Your task to perform on an android device: find photos in the google photos app Image 0: 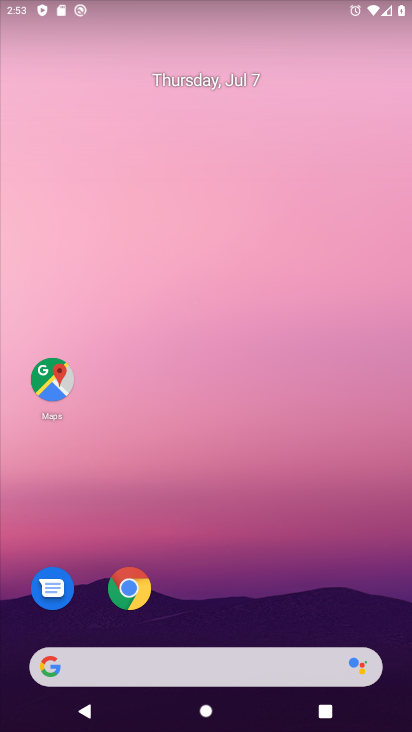
Step 0: drag from (220, 651) to (219, 173)
Your task to perform on an android device: find photos in the google photos app Image 1: 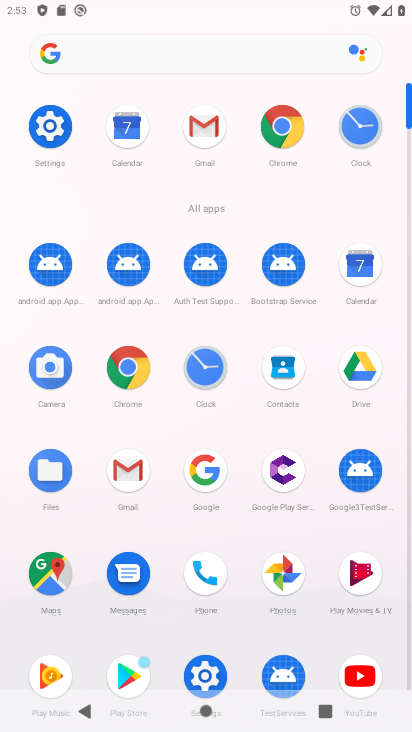
Step 1: click (264, 574)
Your task to perform on an android device: find photos in the google photos app Image 2: 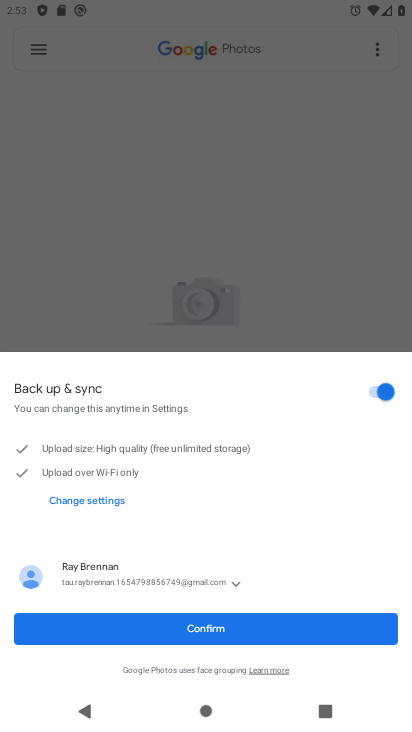
Step 2: click (236, 621)
Your task to perform on an android device: find photos in the google photos app Image 3: 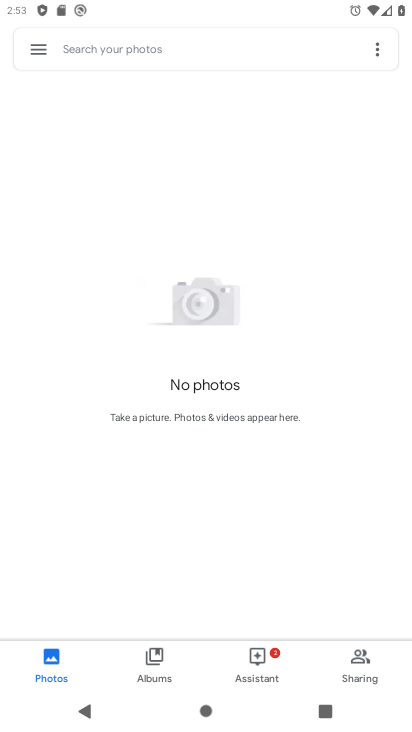
Step 3: task complete